Your task to perform on an android device: Open location settings Image 0: 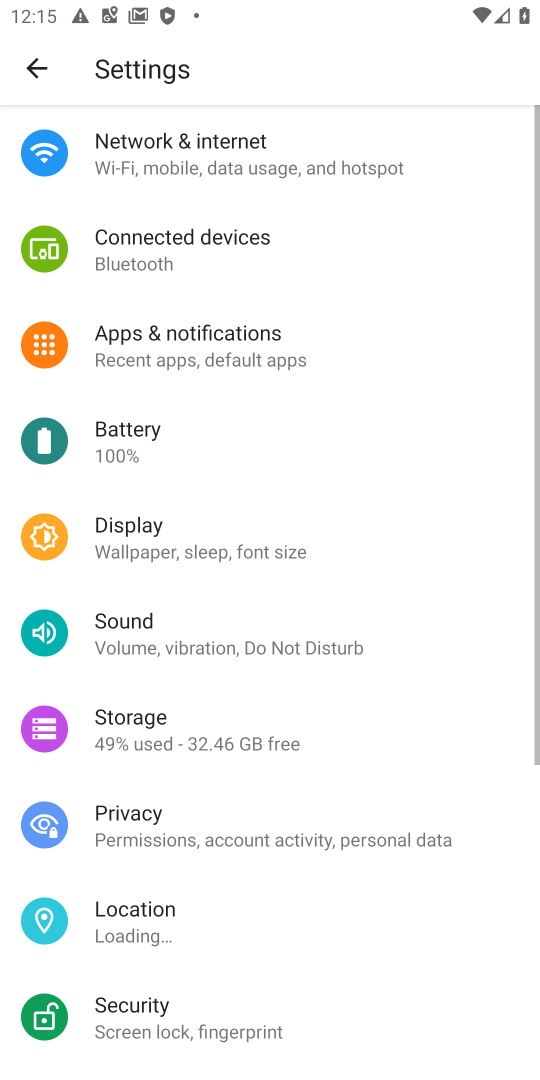
Step 0: press home button
Your task to perform on an android device: Open location settings Image 1: 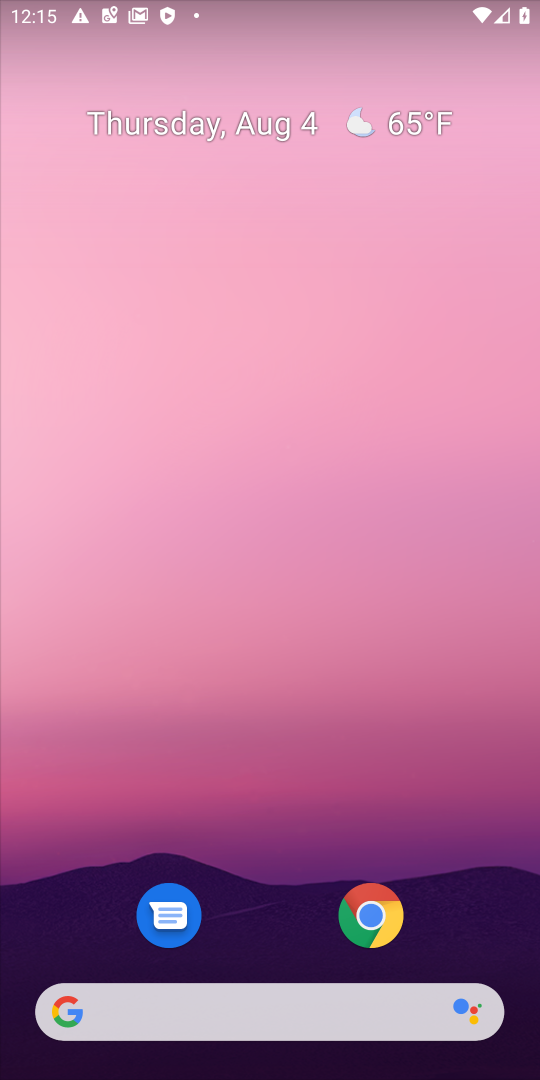
Step 1: drag from (253, 802) to (232, 100)
Your task to perform on an android device: Open location settings Image 2: 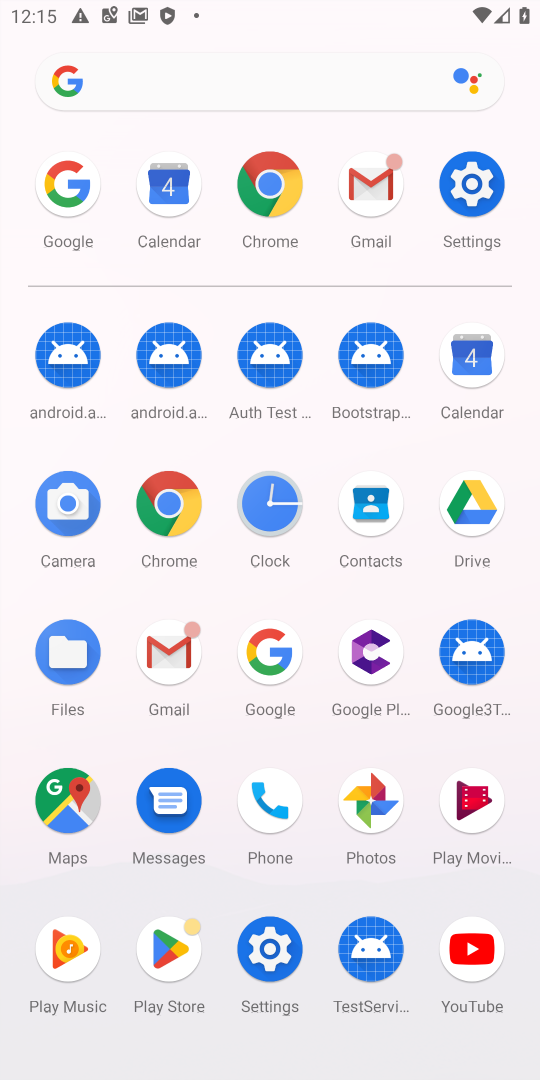
Step 2: click (476, 186)
Your task to perform on an android device: Open location settings Image 3: 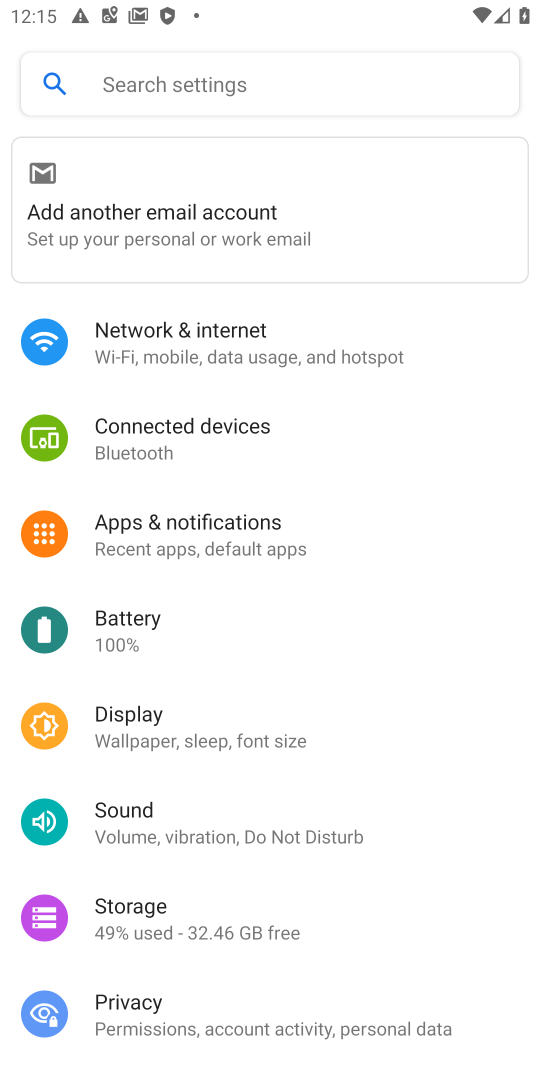
Step 3: drag from (181, 732) to (77, 401)
Your task to perform on an android device: Open location settings Image 4: 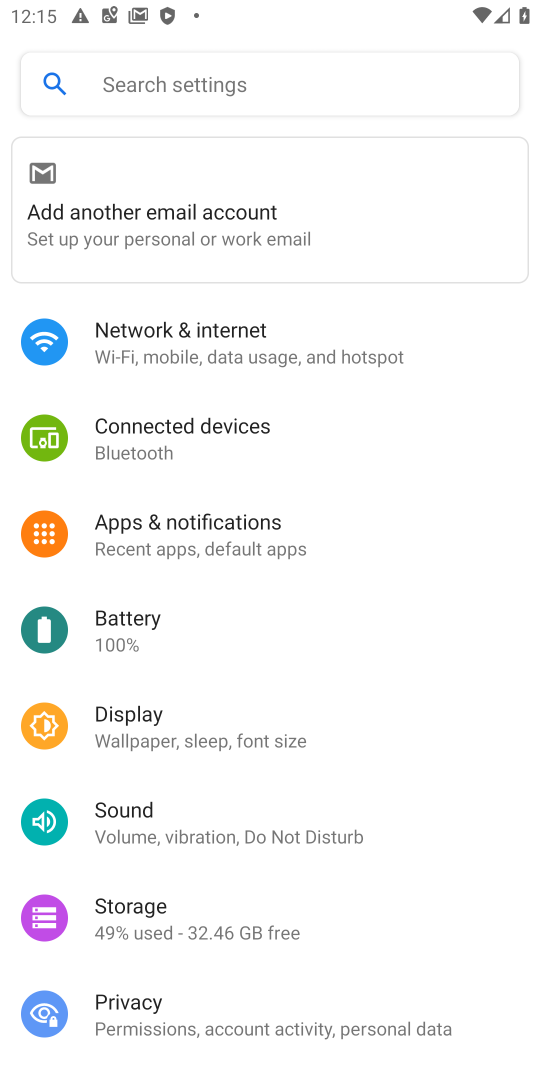
Step 4: drag from (243, 932) to (202, 406)
Your task to perform on an android device: Open location settings Image 5: 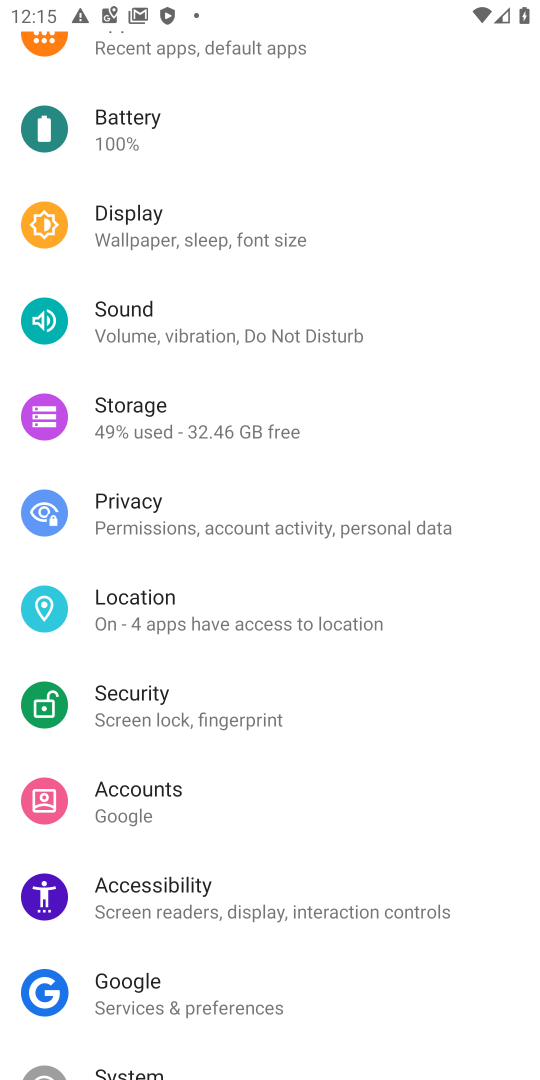
Step 5: click (157, 622)
Your task to perform on an android device: Open location settings Image 6: 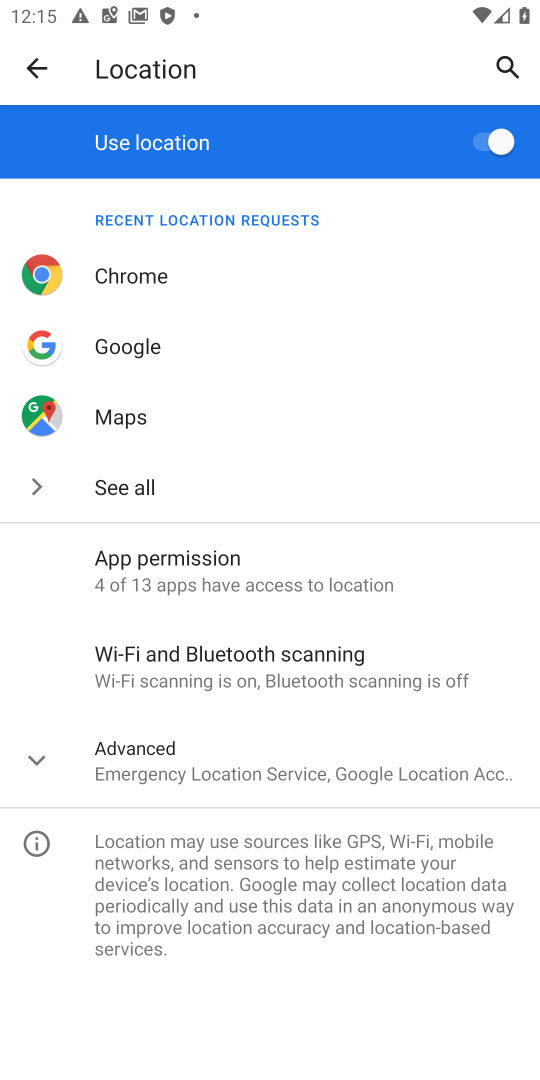
Step 6: task complete